Your task to perform on an android device: snooze an email in the gmail app Image 0: 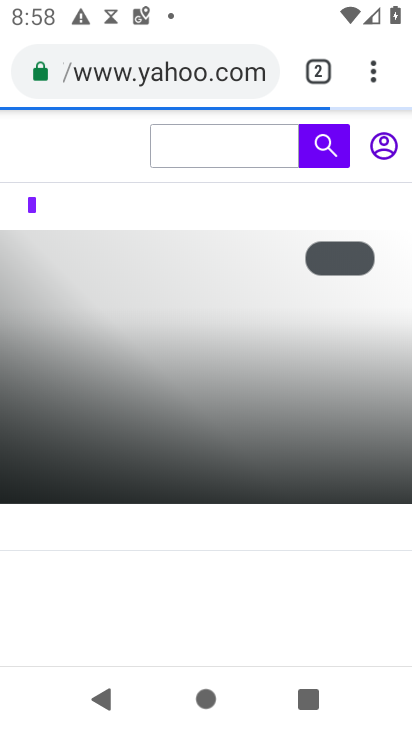
Step 0: press home button
Your task to perform on an android device: snooze an email in the gmail app Image 1: 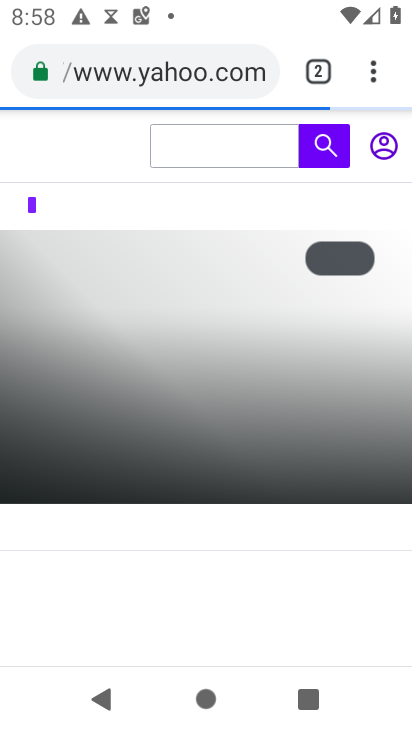
Step 1: press home button
Your task to perform on an android device: snooze an email in the gmail app Image 2: 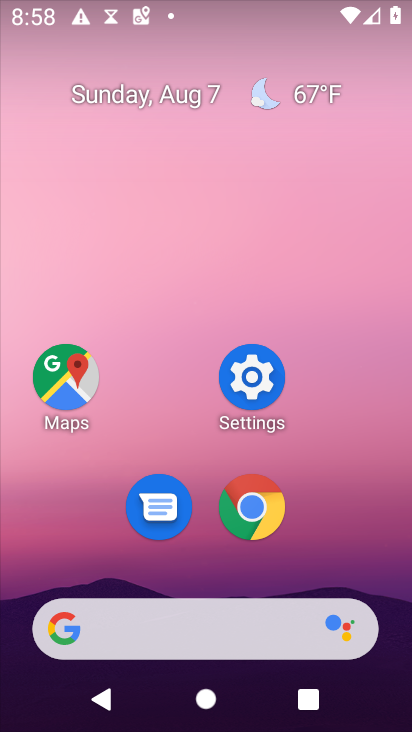
Step 2: drag from (208, 642) to (363, 96)
Your task to perform on an android device: snooze an email in the gmail app Image 3: 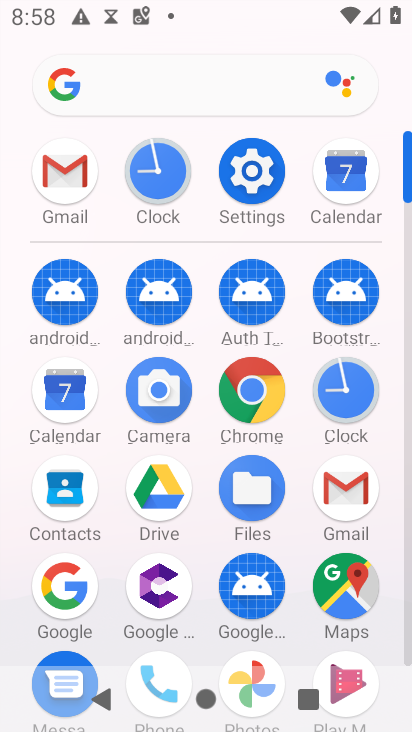
Step 3: click (348, 490)
Your task to perform on an android device: snooze an email in the gmail app Image 4: 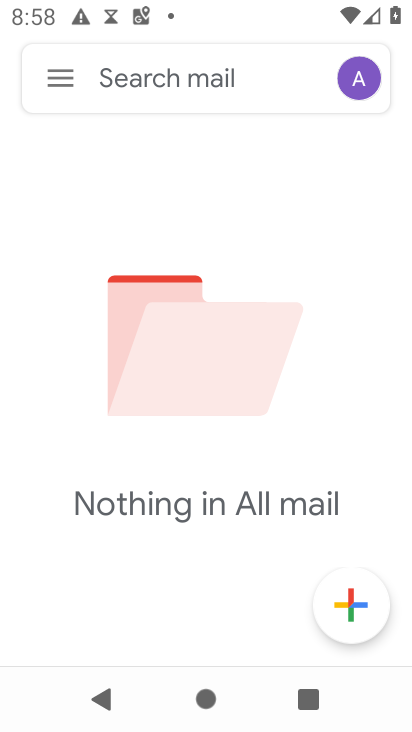
Step 4: click (60, 86)
Your task to perform on an android device: snooze an email in the gmail app Image 5: 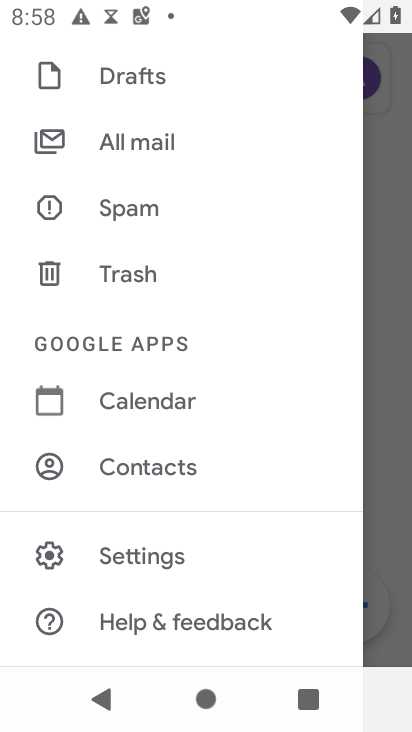
Step 5: click (203, 116)
Your task to perform on an android device: snooze an email in the gmail app Image 6: 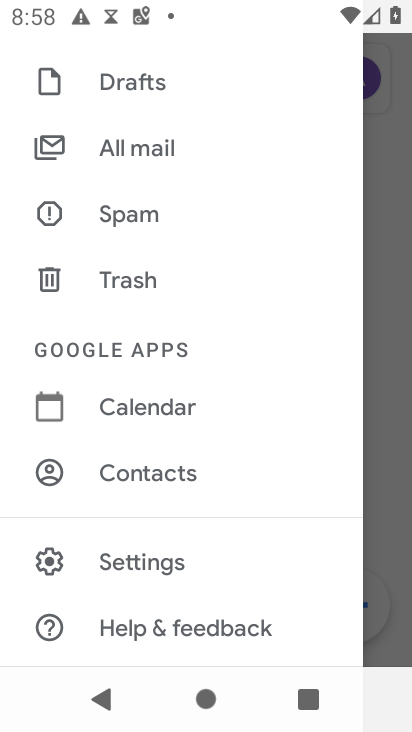
Step 6: drag from (244, 140) to (163, 519)
Your task to perform on an android device: snooze an email in the gmail app Image 7: 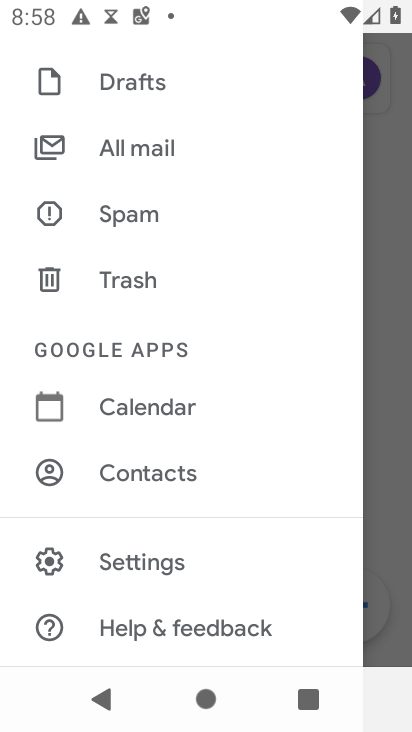
Step 7: drag from (195, 162) to (165, 616)
Your task to perform on an android device: snooze an email in the gmail app Image 8: 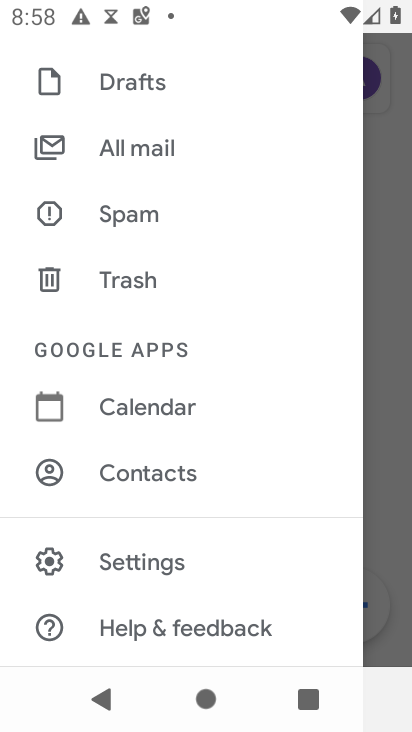
Step 8: drag from (156, 108) to (131, 596)
Your task to perform on an android device: snooze an email in the gmail app Image 9: 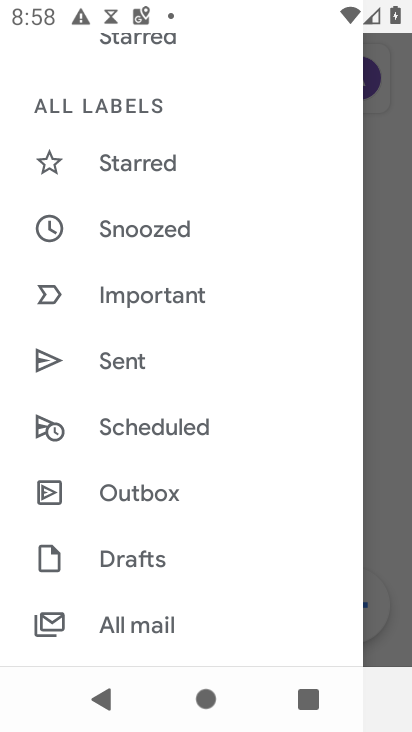
Step 9: click (156, 230)
Your task to perform on an android device: snooze an email in the gmail app Image 10: 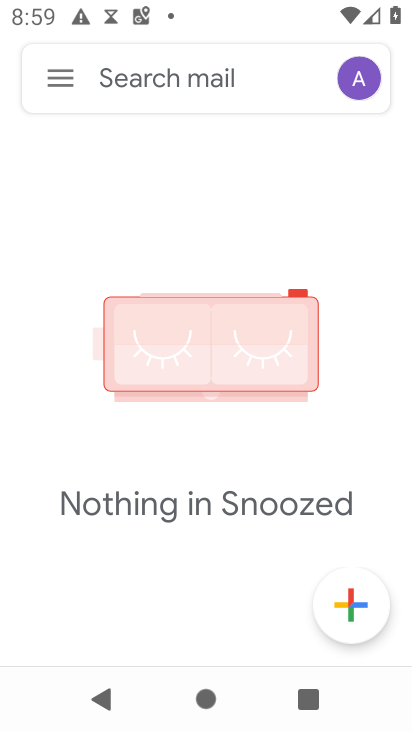
Step 10: task complete